Your task to perform on an android device: open chrome and create a bookmark for the current page Image 0: 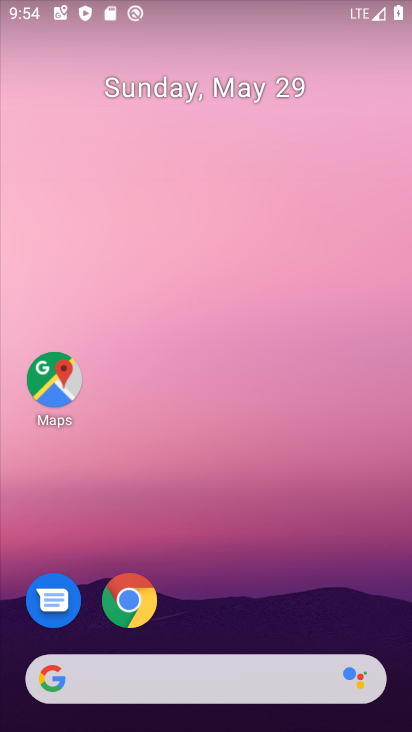
Step 0: click (123, 601)
Your task to perform on an android device: open chrome and create a bookmark for the current page Image 1: 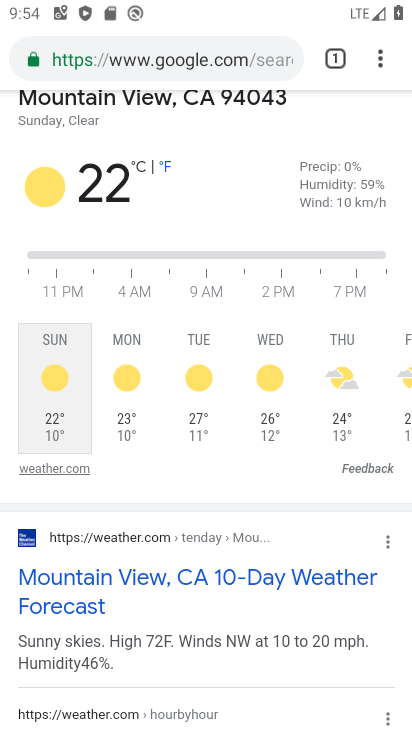
Step 1: task complete